Your task to perform on an android device: Go to internet settings Image 0: 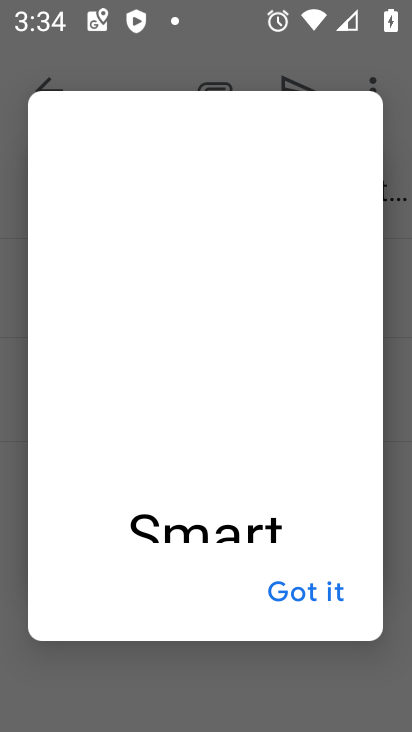
Step 0: press home button
Your task to perform on an android device: Go to internet settings Image 1: 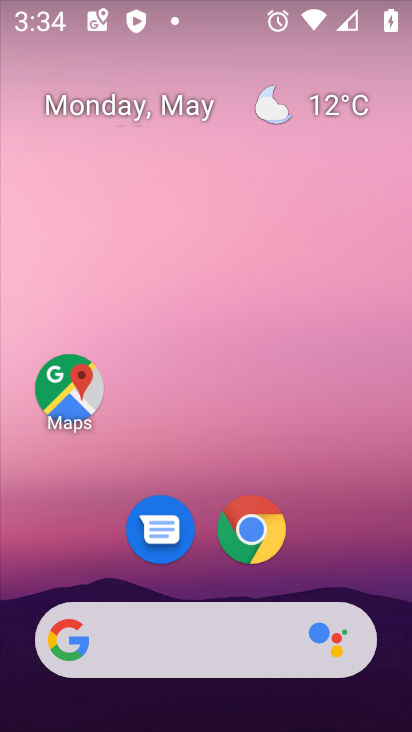
Step 1: drag from (316, 585) to (306, 243)
Your task to perform on an android device: Go to internet settings Image 2: 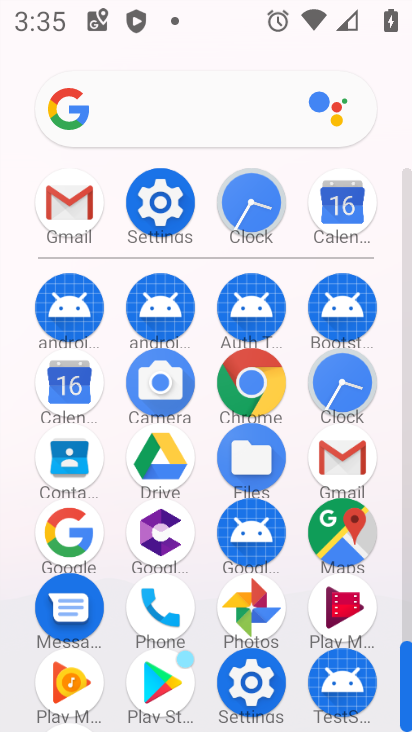
Step 2: click (163, 197)
Your task to perform on an android device: Go to internet settings Image 3: 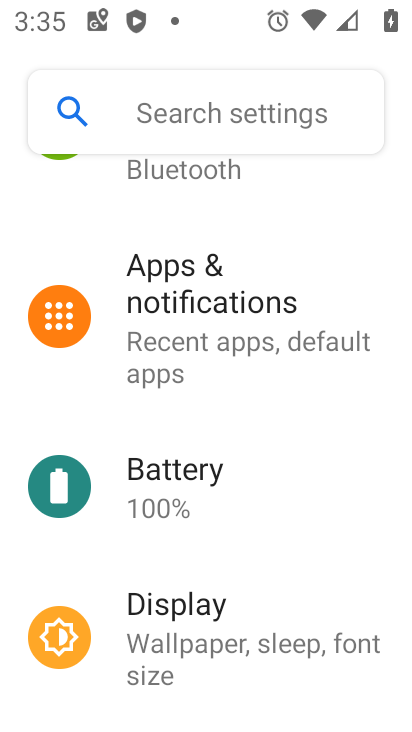
Step 3: drag from (166, 247) to (171, 476)
Your task to perform on an android device: Go to internet settings Image 4: 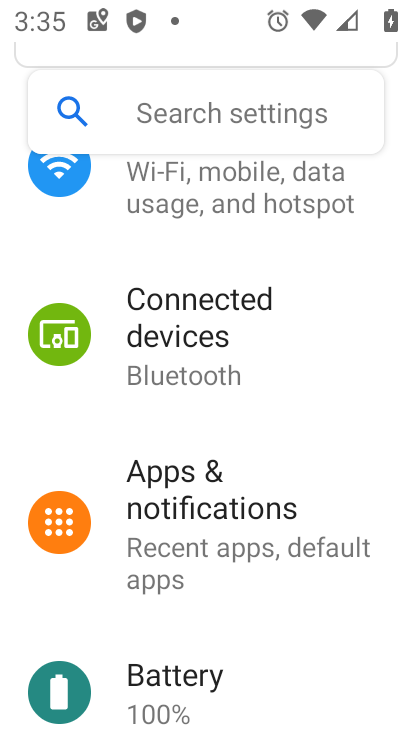
Step 4: click (244, 195)
Your task to perform on an android device: Go to internet settings Image 5: 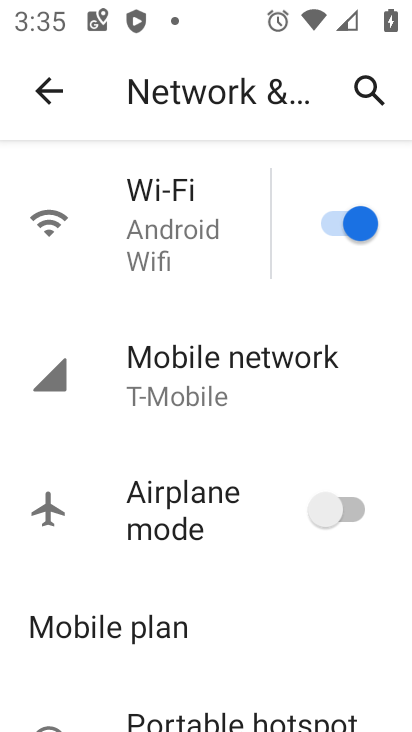
Step 5: click (76, 379)
Your task to perform on an android device: Go to internet settings Image 6: 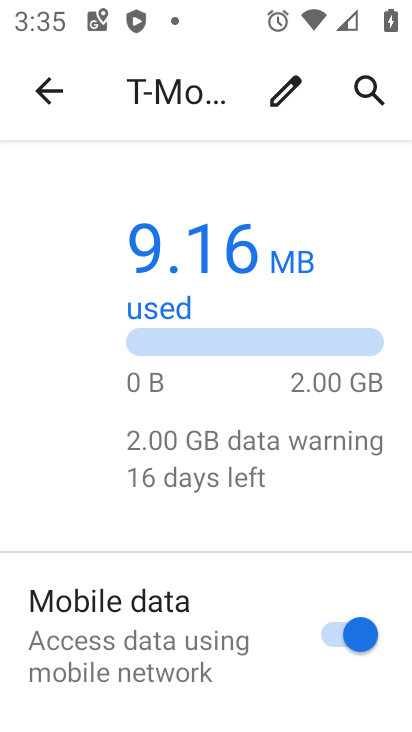
Step 6: task complete